Your task to perform on an android device: set the stopwatch Image 0: 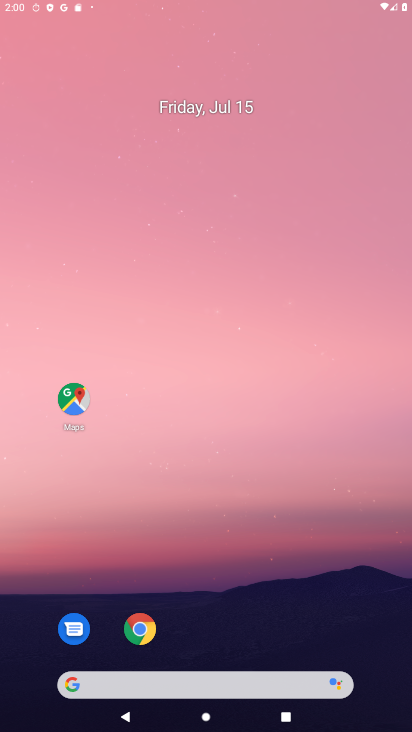
Step 0: click (139, 629)
Your task to perform on an android device: set the stopwatch Image 1: 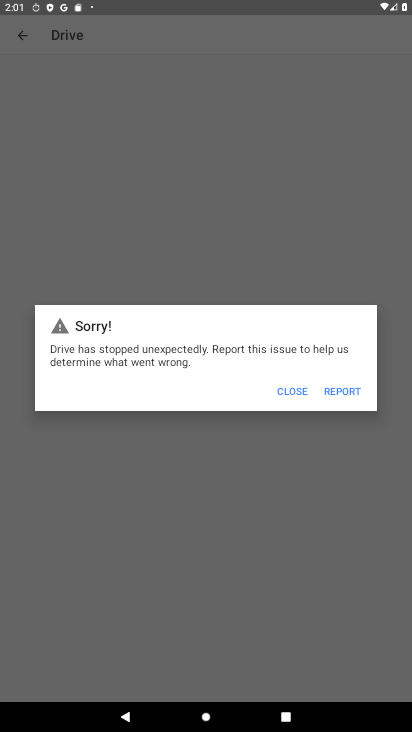
Step 1: press home button
Your task to perform on an android device: set the stopwatch Image 2: 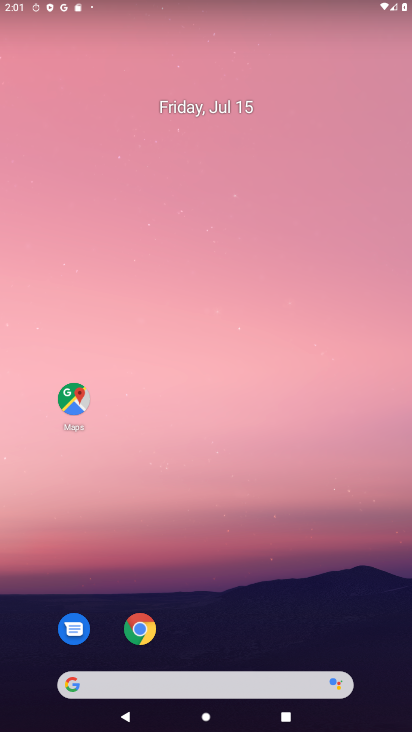
Step 2: drag from (216, 532) to (193, 23)
Your task to perform on an android device: set the stopwatch Image 3: 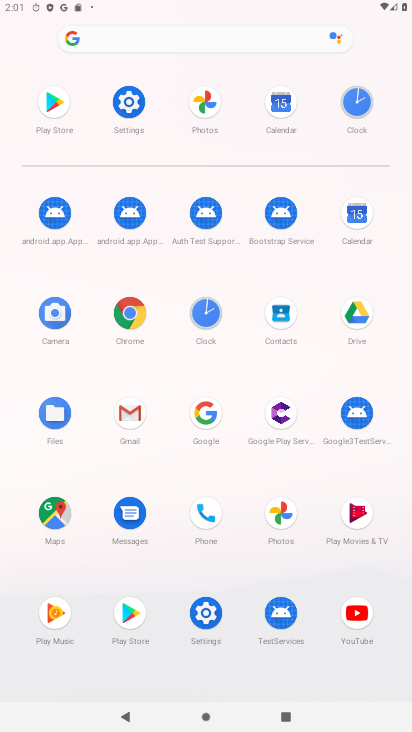
Step 3: click (351, 125)
Your task to perform on an android device: set the stopwatch Image 4: 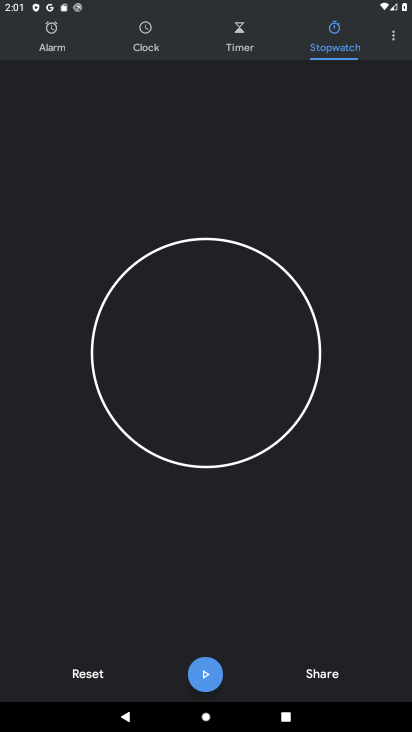
Step 4: click (89, 673)
Your task to perform on an android device: set the stopwatch Image 5: 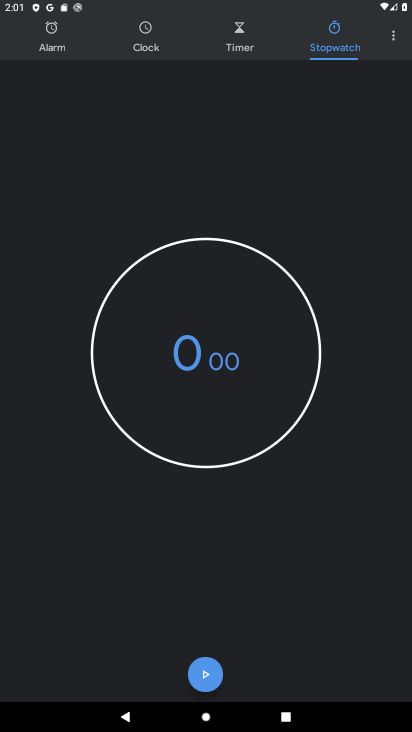
Step 5: click (205, 680)
Your task to perform on an android device: set the stopwatch Image 6: 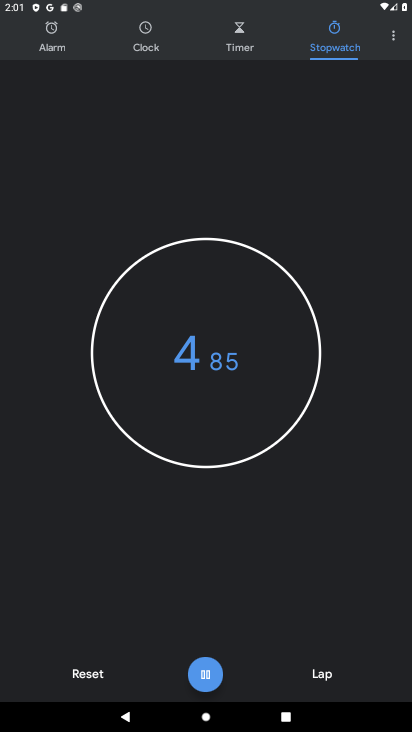
Step 6: click (205, 680)
Your task to perform on an android device: set the stopwatch Image 7: 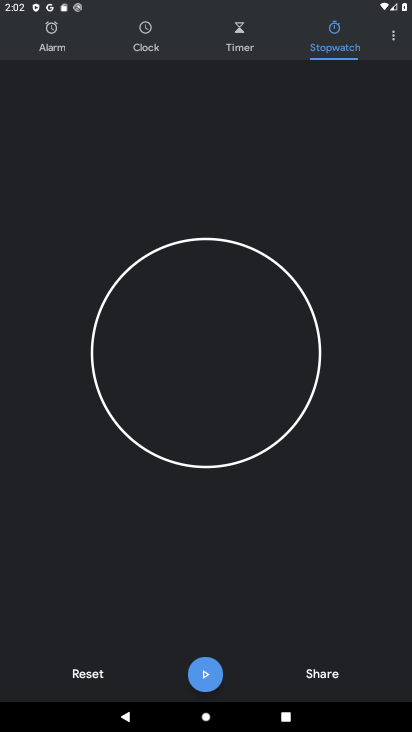
Step 7: task complete